Your task to perform on an android device: Open Amazon Image 0: 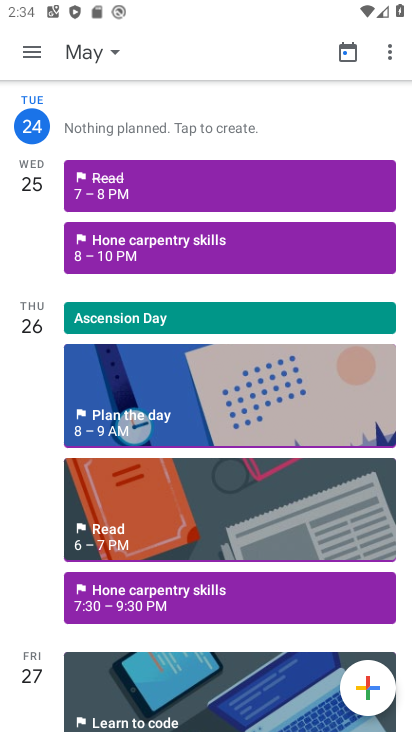
Step 0: press home button
Your task to perform on an android device: Open Amazon Image 1: 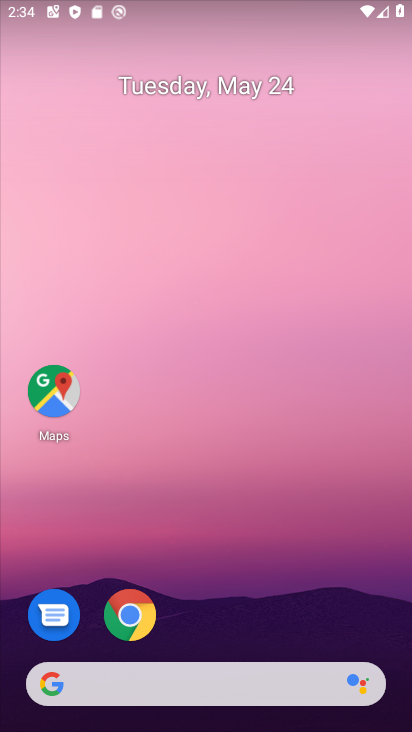
Step 1: drag from (225, 635) to (221, 213)
Your task to perform on an android device: Open Amazon Image 2: 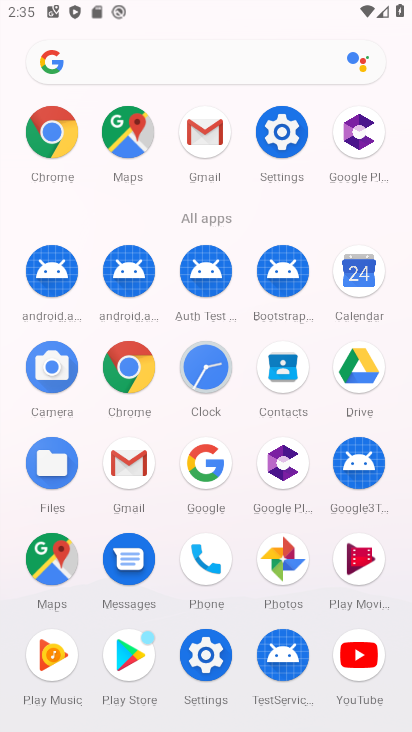
Step 2: click (127, 379)
Your task to perform on an android device: Open Amazon Image 3: 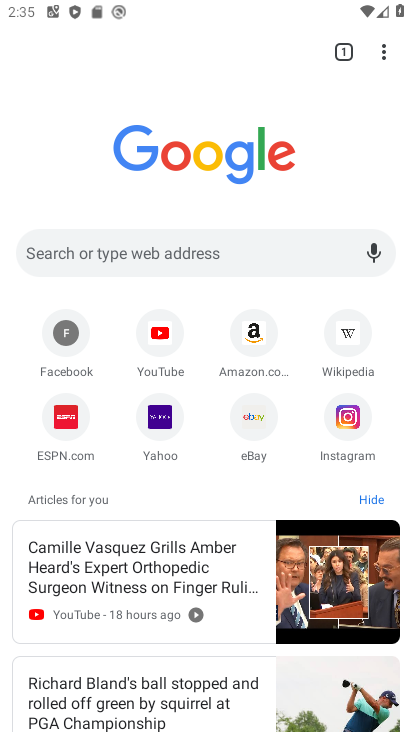
Step 3: click (218, 254)
Your task to perform on an android device: Open Amazon Image 4: 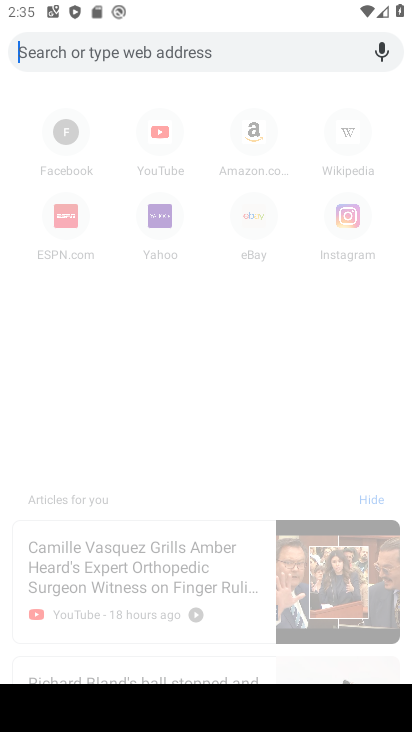
Step 4: press back button
Your task to perform on an android device: Open Amazon Image 5: 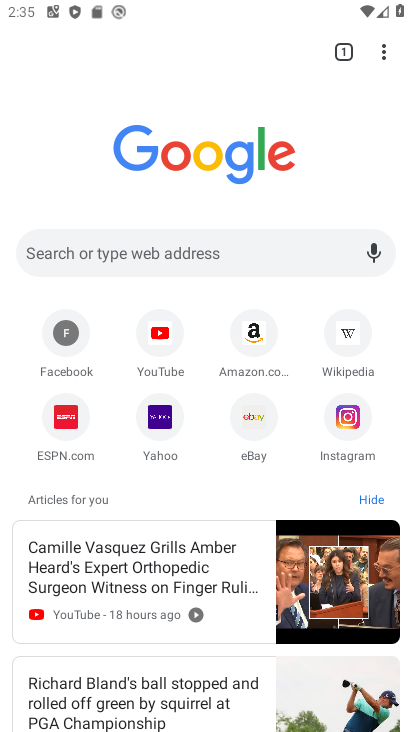
Step 5: click (260, 348)
Your task to perform on an android device: Open Amazon Image 6: 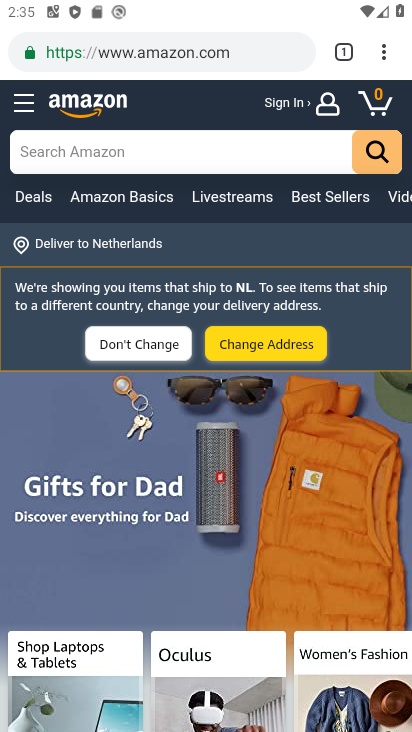
Step 6: task complete